Your task to perform on an android device: What's the weather going to be tomorrow? Image 0: 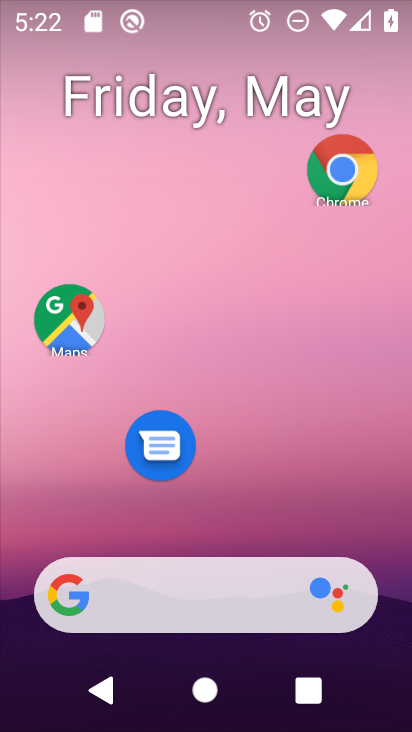
Step 0: click (177, 602)
Your task to perform on an android device: What's the weather going to be tomorrow? Image 1: 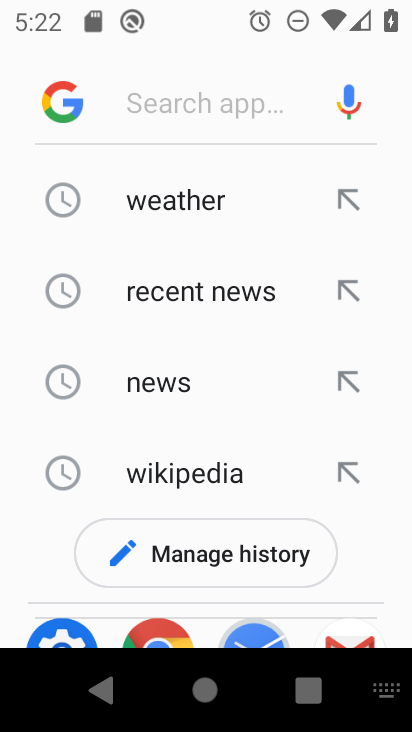
Step 1: click (178, 204)
Your task to perform on an android device: What's the weather going to be tomorrow? Image 2: 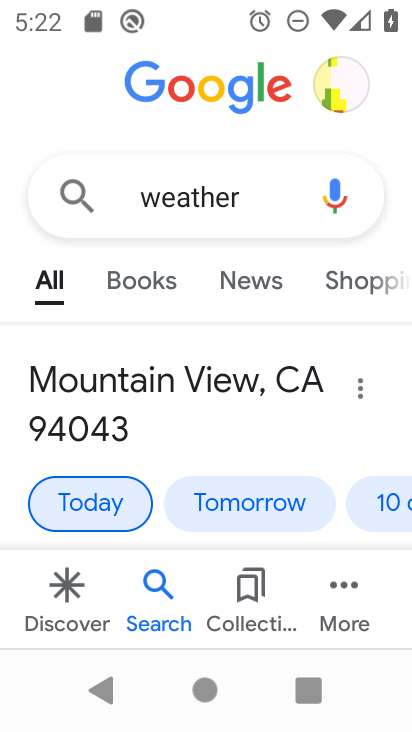
Step 2: click (275, 504)
Your task to perform on an android device: What's the weather going to be tomorrow? Image 3: 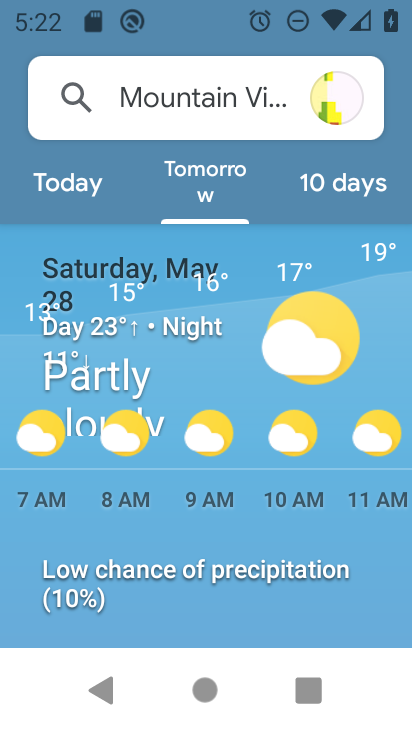
Step 3: task complete